Your task to perform on an android device: turn off data saver in the chrome app Image 0: 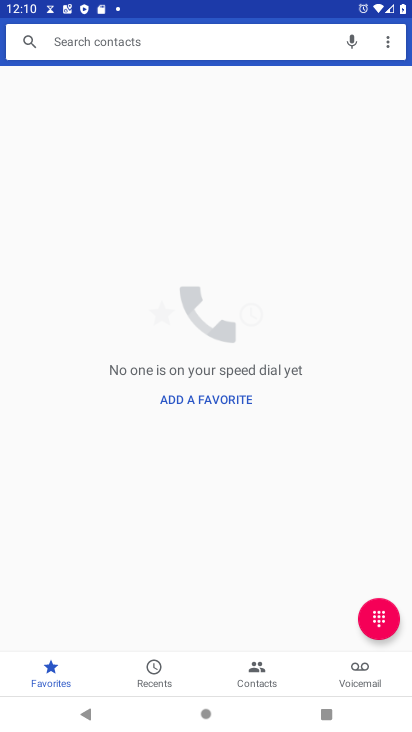
Step 0: press home button
Your task to perform on an android device: turn off data saver in the chrome app Image 1: 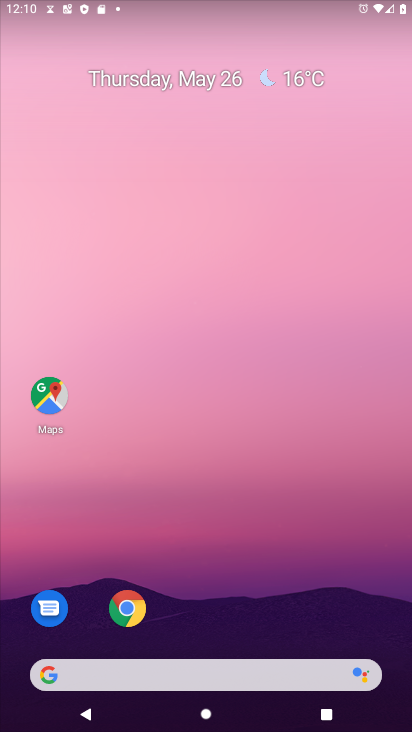
Step 1: click (128, 610)
Your task to perform on an android device: turn off data saver in the chrome app Image 2: 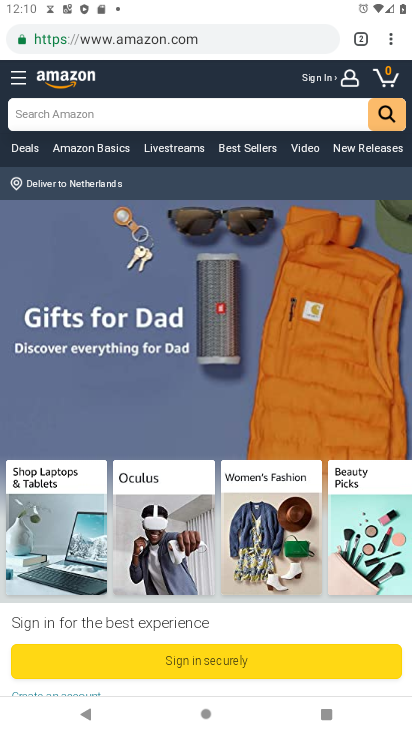
Step 2: click (393, 45)
Your task to perform on an android device: turn off data saver in the chrome app Image 3: 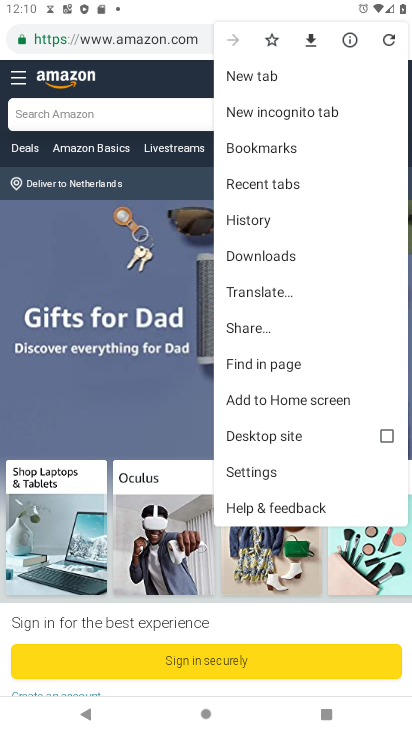
Step 3: click (252, 469)
Your task to perform on an android device: turn off data saver in the chrome app Image 4: 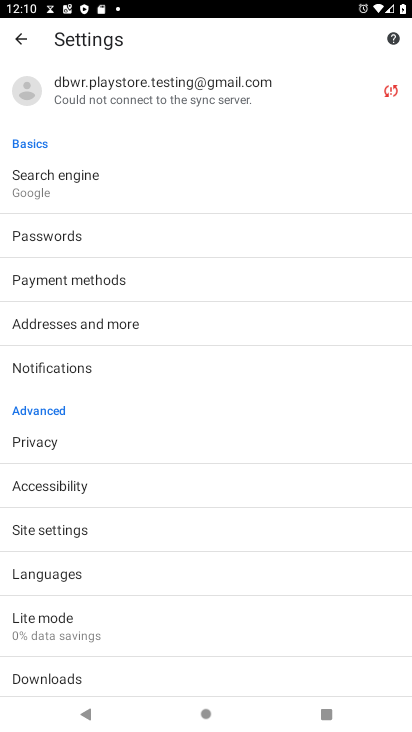
Step 4: click (55, 622)
Your task to perform on an android device: turn off data saver in the chrome app Image 5: 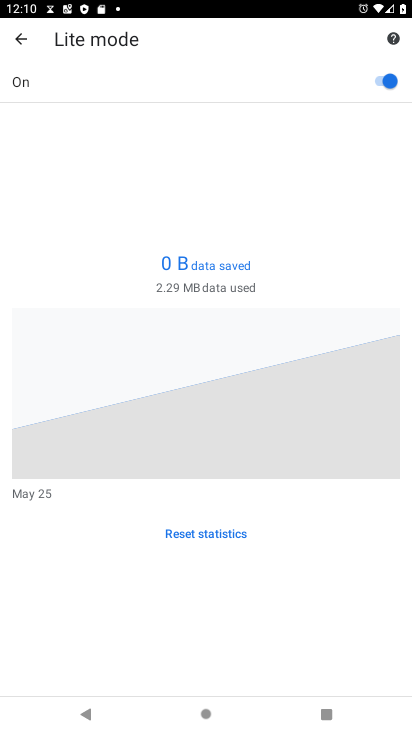
Step 5: click (375, 78)
Your task to perform on an android device: turn off data saver in the chrome app Image 6: 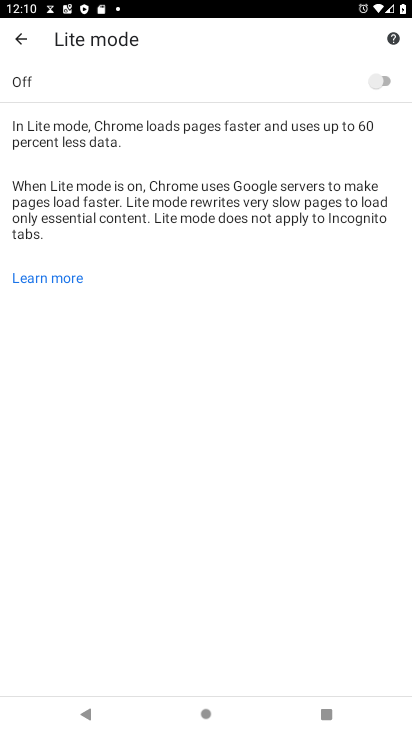
Step 6: task complete